Your task to perform on an android device: move an email to a new category in the gmail app Image 0: 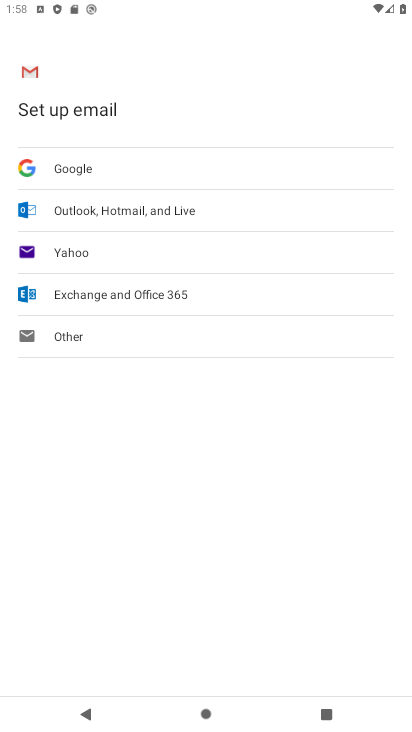
Step 0: press home button
Your task to perform on an android device: move an email to a new category in the gmail app Image 1: 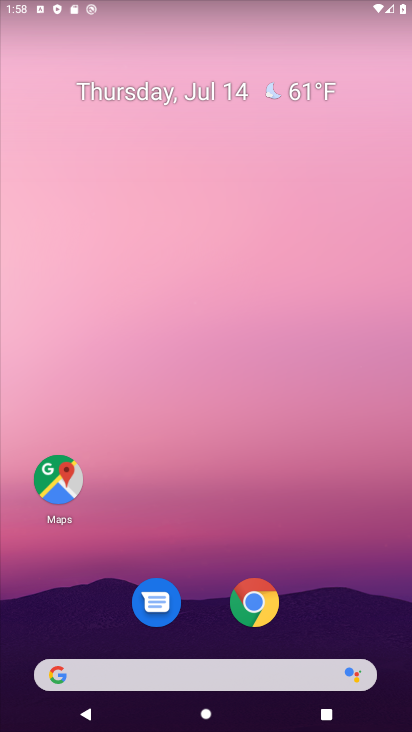
Step 1: drag from (171, 645) to (190, 130)
Your task to perform on an android device: move an email to a new category in the gmail app Image 2: 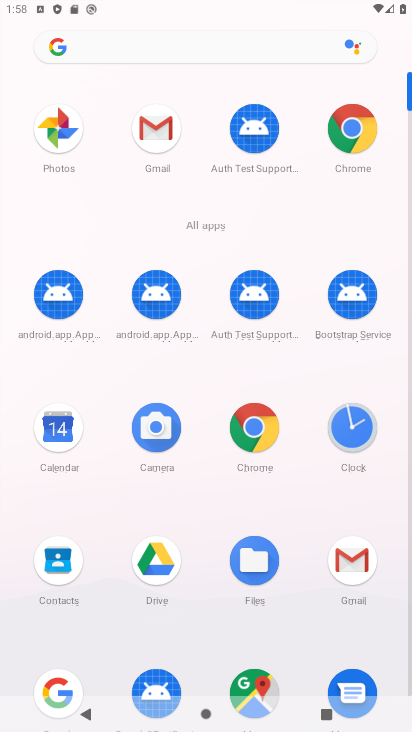
Step 2: click (346, 569)
Your task to perform on an android device: move an email to a new category in the gmail app Image 3: 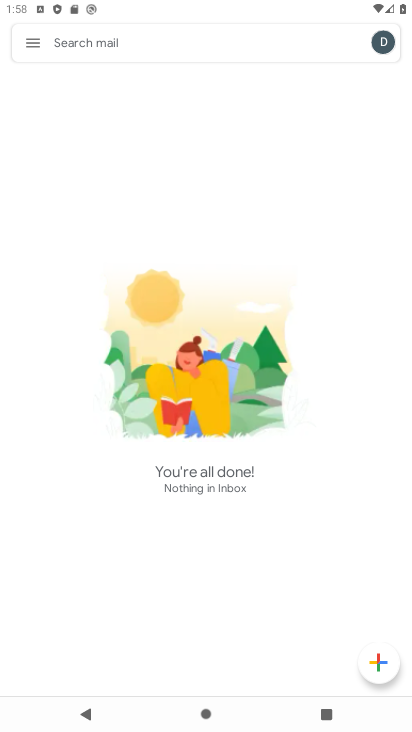
Step 3: click (27, 44)
Your task to perform on an android device: move an email to a new category in the gmail app Image 4: 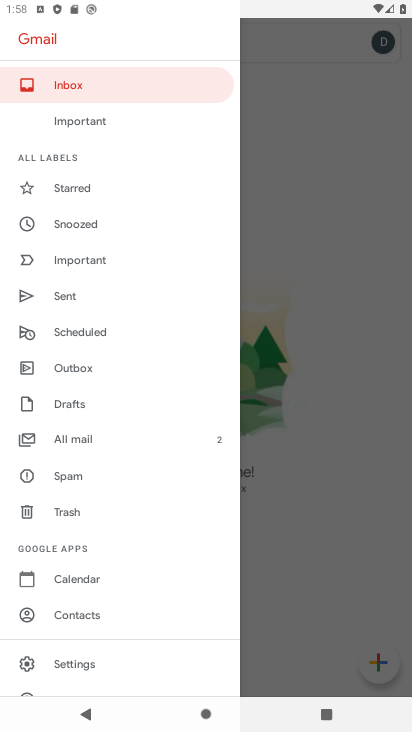
Step 4: task complete